Your task to perform on an android device: turn on airplane mode Image 0: 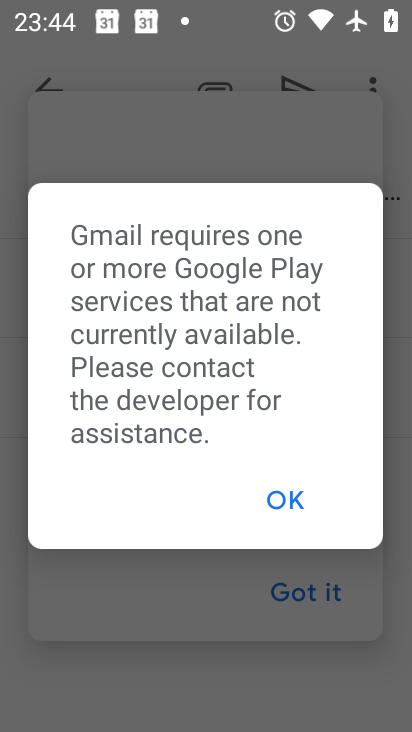
Step 0: press home button
Your task to perform on an android device: turn on airplane mode Image 1: 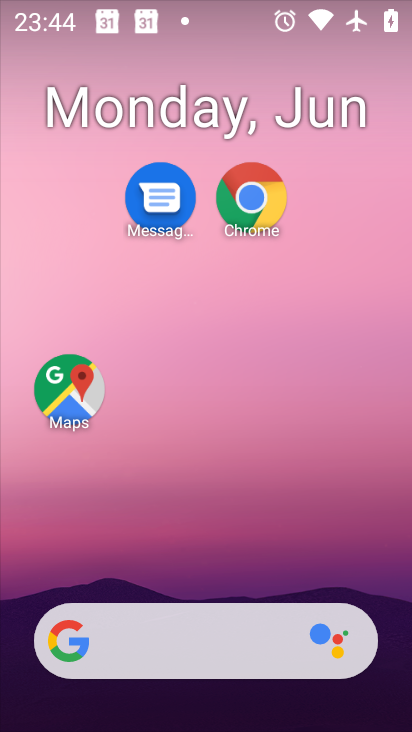
Step 1: drag from (229, 566) to (232, 298)
Your task to perform on an android device: turn on airplane mode Image 2: 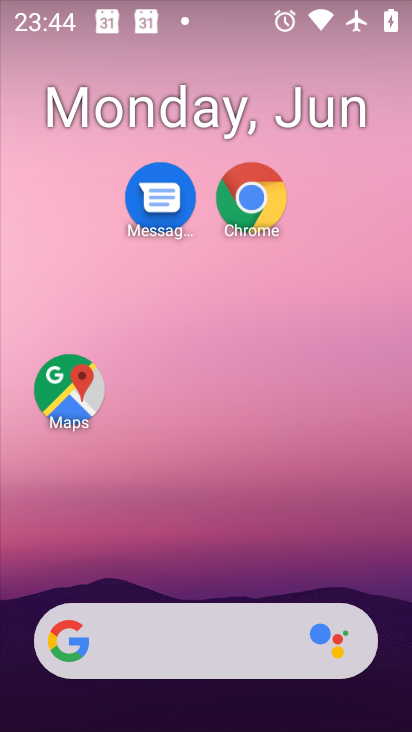
Step 2: drag from (202, 575) to (206, 212)
Your task to perform on an android device: turn on airplane mode Image 3: 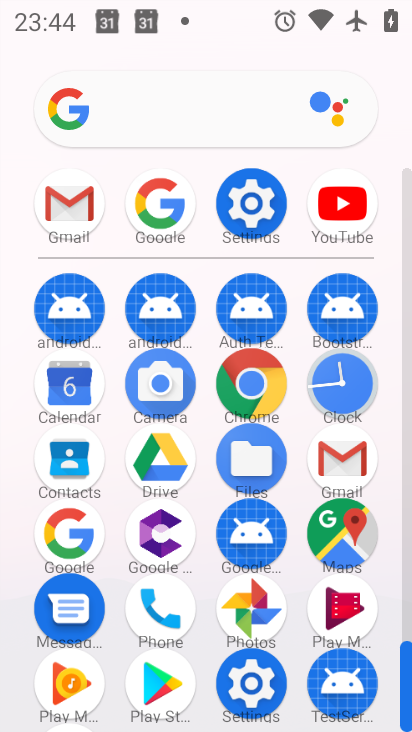
Step 3: click (248, 218)
Your task to perform on an android device: turn on airplane mode Image 4: 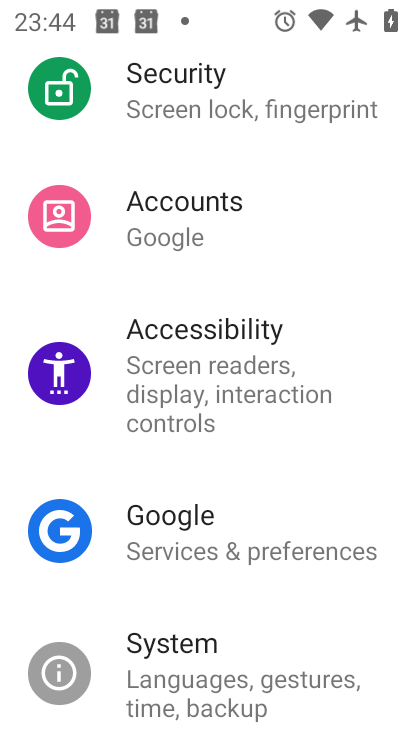
Step 4: drag from (248, 218) to (247, 538)
Your task to perform on an android device: turn on airplane mode Image 5: 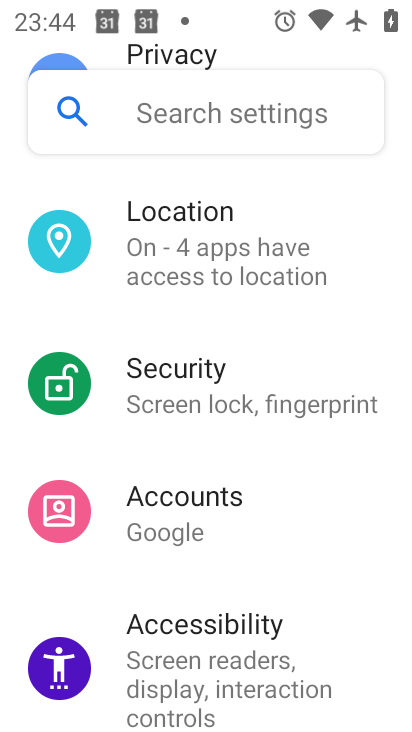
Step 5: drag from (248, 217) to (257, 467)
Your task to perform on an android device: turn on airplane mode Image 6: 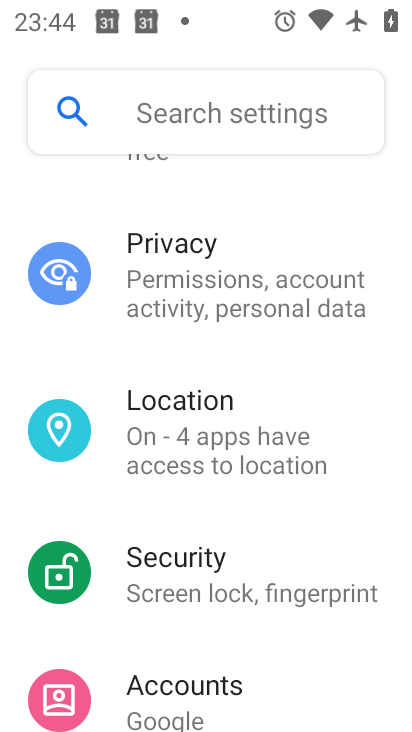
Step 6: drag from (241, 259) to (258, 480)
Your task to perform on an android device: turn on airplane mode Image 7: 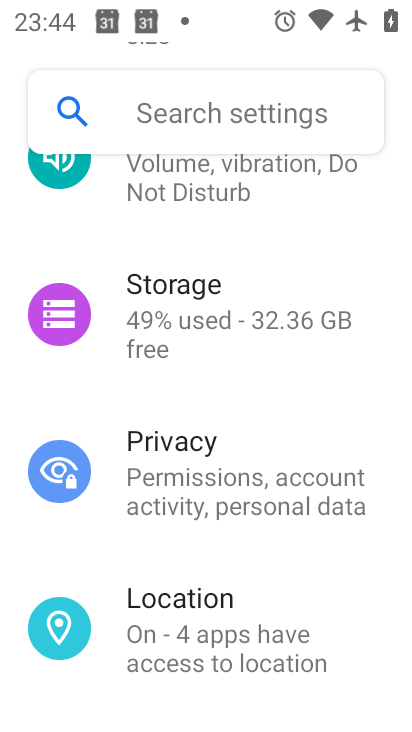
Step 7: drag from (260, 226) to (299, 488)
Your task to perform on an android device: turn on airplane mode Image 8: 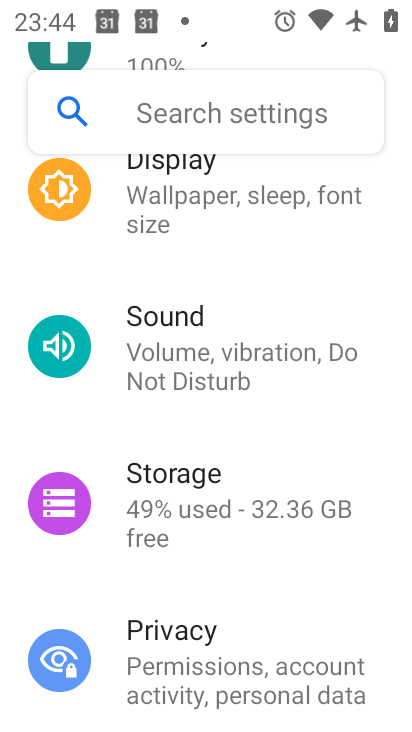
Step 8: drag from (255, 223) to (294, 517)
Your task to perform on an android device: turn on airplane mode Image 9: 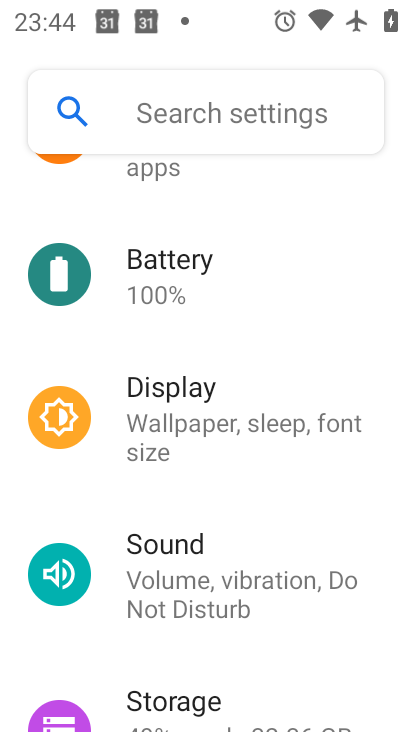
Step 9: drag from (257, 240) to (257, 622)
Your task to perform on an android device: turn on airplane mode Image 10: 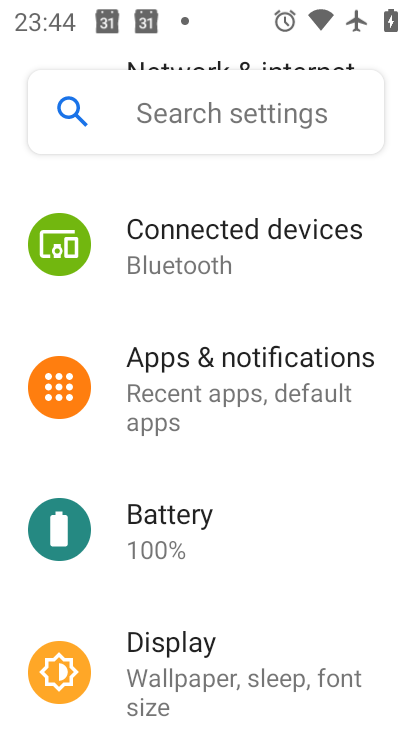
Step 10: drag from (237, 229) to (245, 540)
Your task to perform on an android device: turn on airplane mode Image 11: 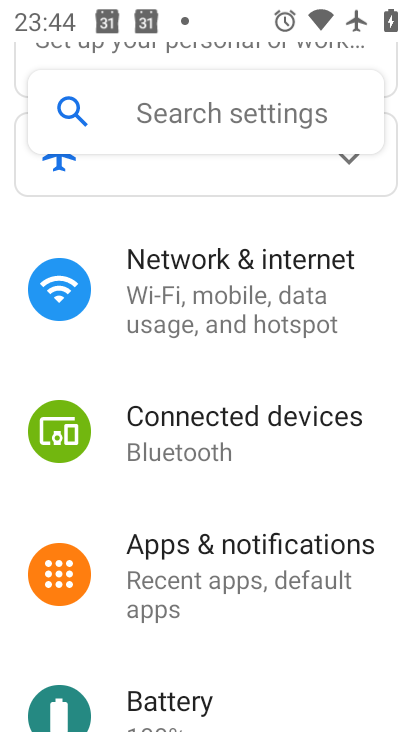
Step 11: drag from (245, 246) to (251, 324)
Your task to perform on an android device: turn on airplane mode Image 12: 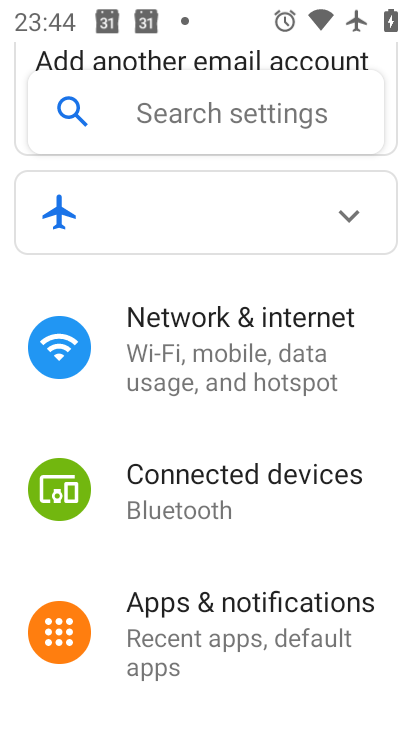
Step 12: click (251, 324)
Your task to perform on an android device: turn on airplane mode Image 13: 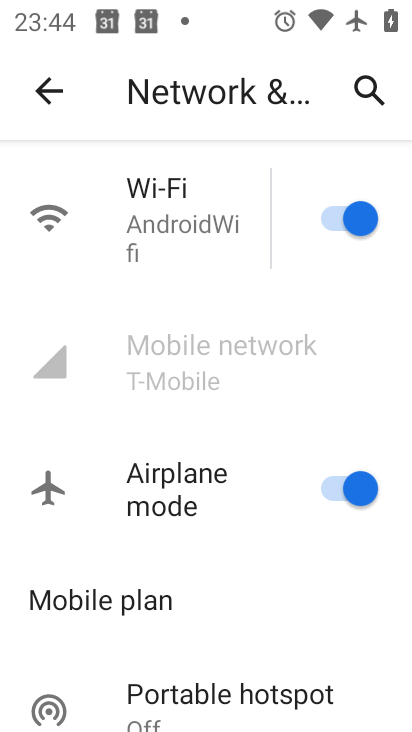
Step 13: task complete